Your task to perform on an android device: turn on priority inbox in the gmail app Image 0: 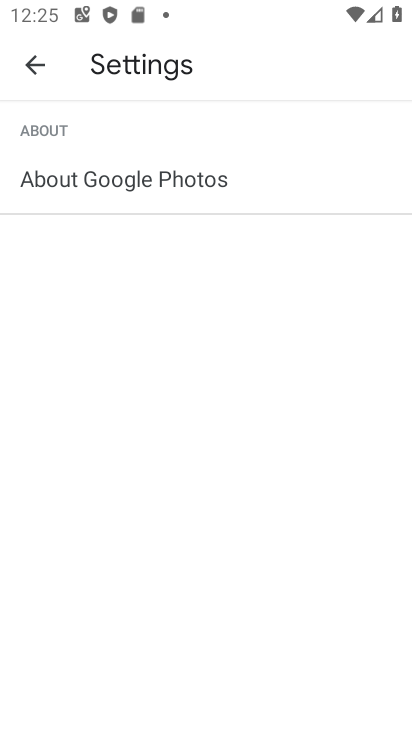
Step 0: press home button
Your task to perform on an android device: turn on priority inbox in the gmail app Image 1: 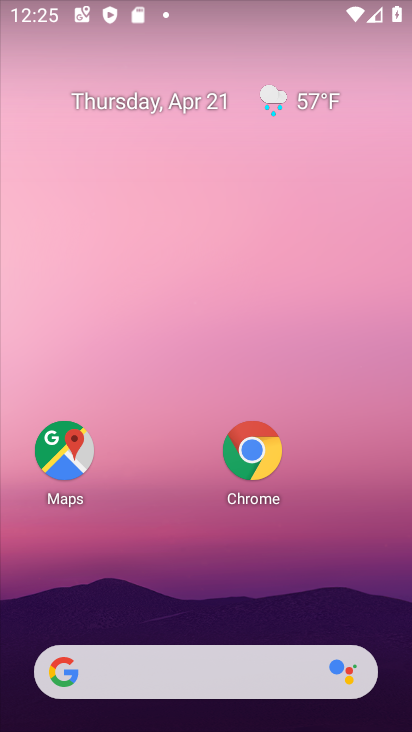
Step 1: drag from (197, 591) to (211, 277)
Your task to perform on an android device: turn on priority inbox in the gmail app Image 2: 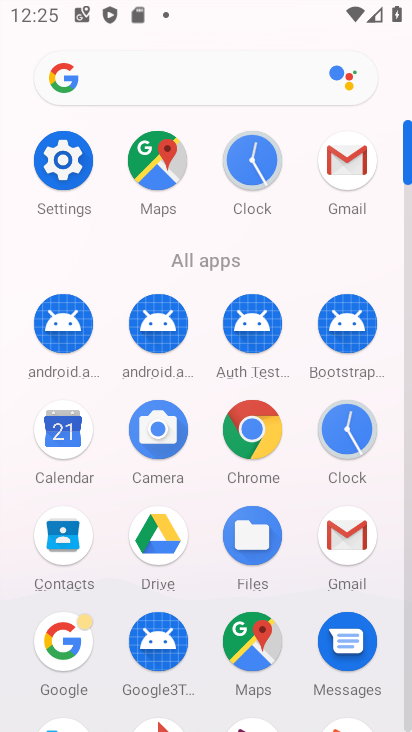
Step 2: click (354, 551)
Your task to perform on an android device: turn on priority inbox in the gmail app Image 3: 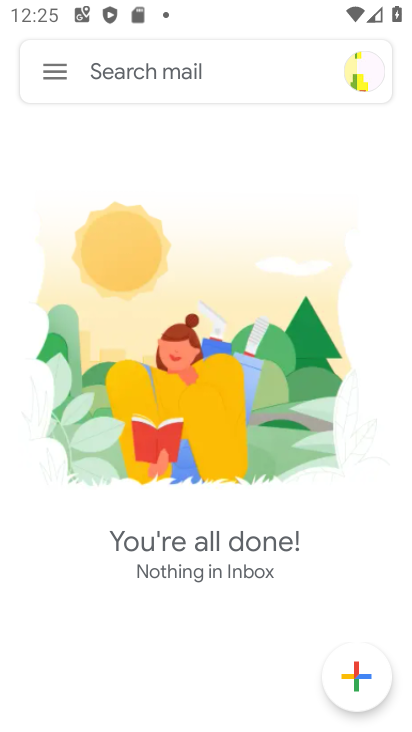
Step 3: click (61, 68)
Your task to perform on an android device: turn on priority inbox in the gmail app Image 4: 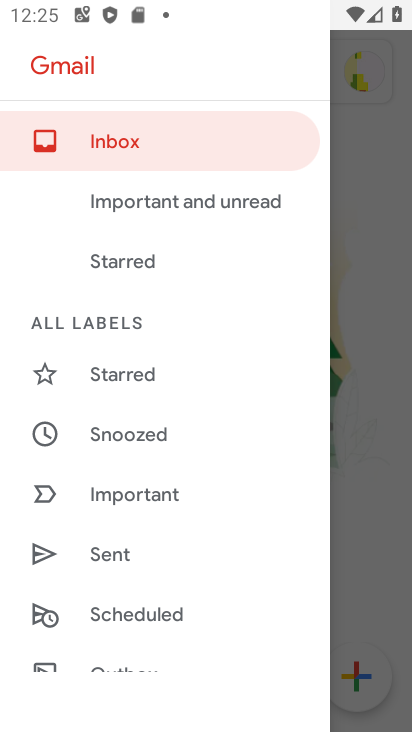
Step 4: drag from (95, 628) to (154, 167)
Your task to perform on an android device: turn on priority inbox in the gmail app Image 5: 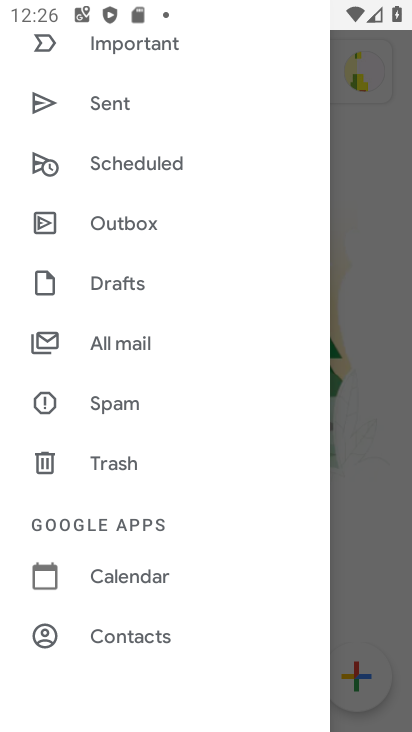
Step 5: drag from (129, 687) to (246, 5)
Your task to perform on an android device: turn on priority inbox in the gmail app Image 6: 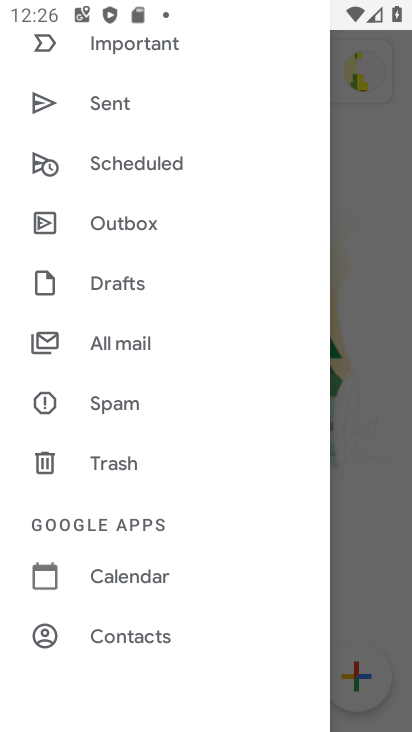
Step 6: drag from (94, 634) to (116, 154)
Your task to perform on an android device: turn on priority inbox in the gmail app Image 7: 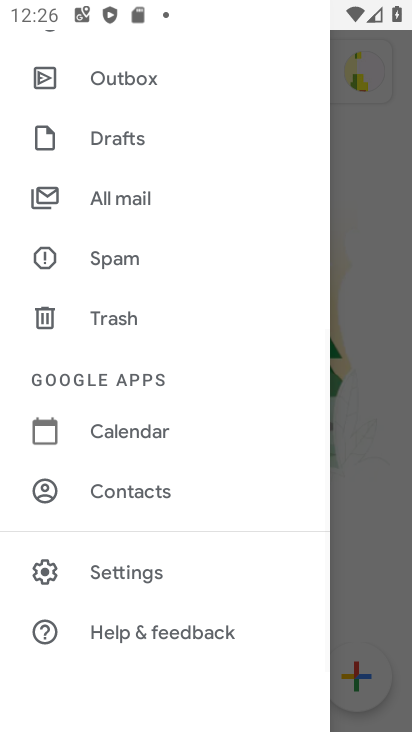
Step 7: click (123, 589)
Your task to perform on an android device: turn on priority inbox in the gmail app Image 8: 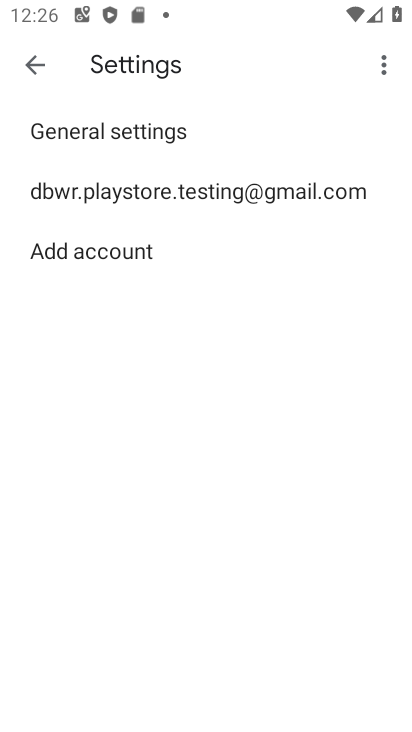
Step 8: click (256, 197)
Your task to perform on an android device: turn on priority inbox in the gmail app Image 9: 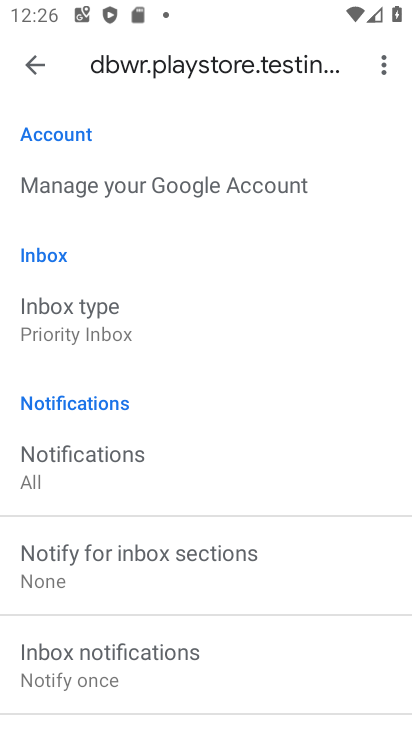
Step 9: click (208, 304)
Your task to perform on an android device: turn on priority inbox in the gmail app Image 10: 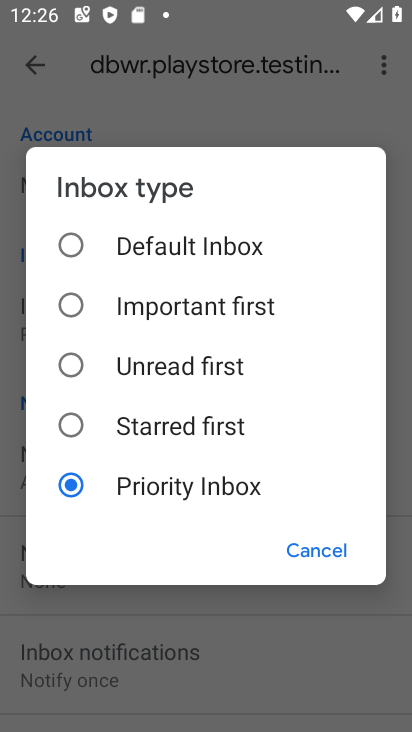
Step 10: task complete